Your task to perform on an android device: check google app version Image 0: 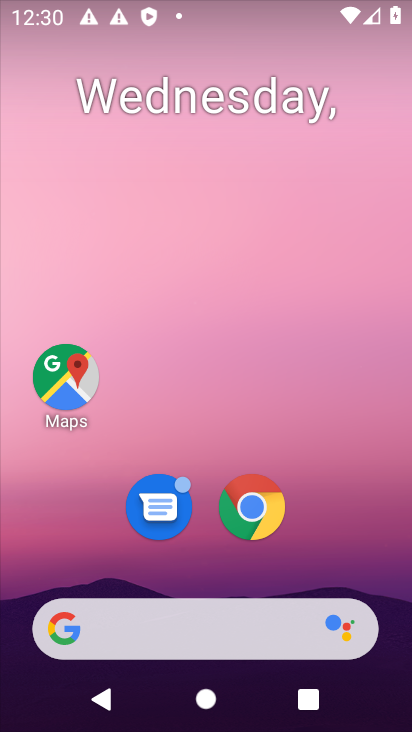
Step 0: drag from (260, 552) to (221, 181)
Your task to perform on an android device: check google app version Image 1: 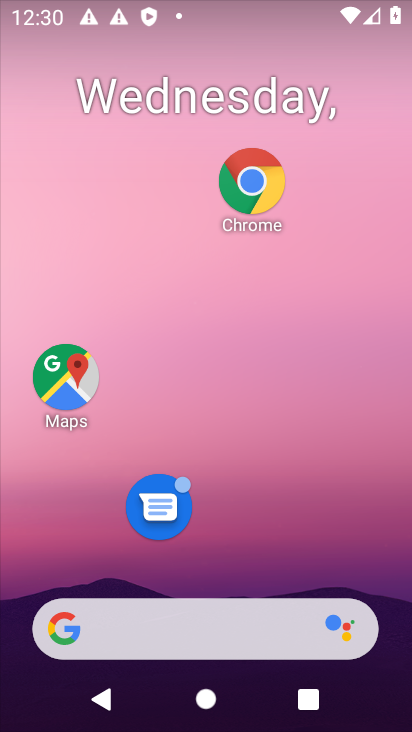
Step 1: drag from (218, 586) to (157, 101)
Your task to perform on an android device: check google app version Image 2: 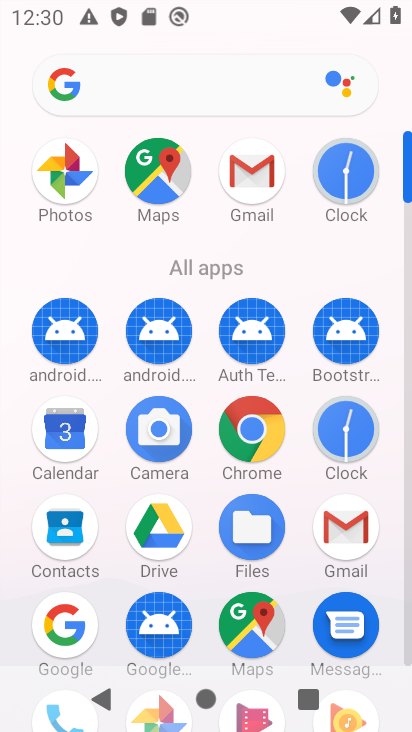
Step 2: drag from (213, 587) to (374, 420)
Your task to perform on an android device: check google app version Image 3: 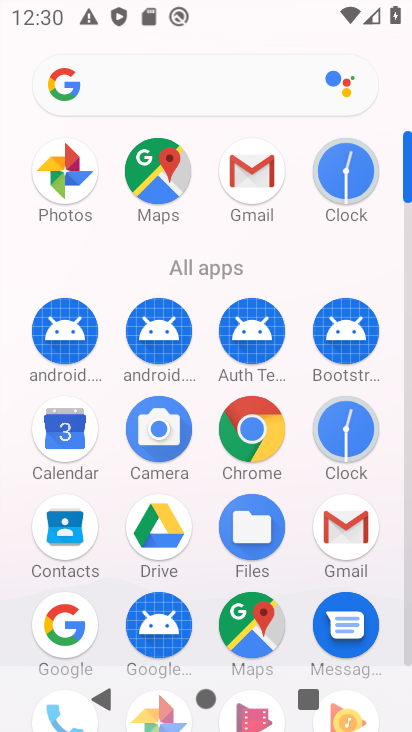
Step 3: click (70, 606)
Your task to perform on an android device: check google app version Image 4: 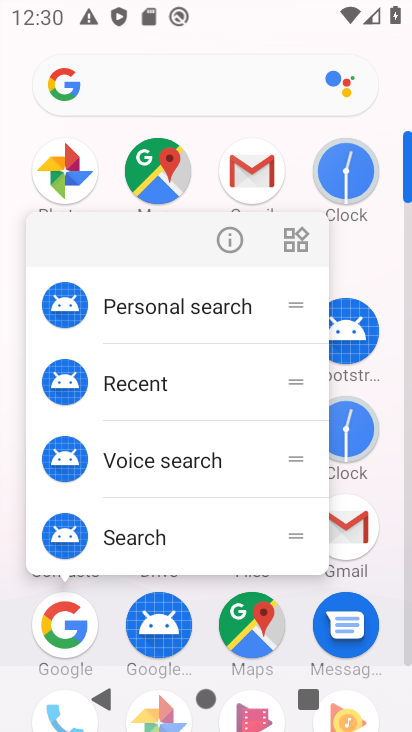
Step 4: click (217, 253)
Your task to perform on an android device: check google app version Image 5: 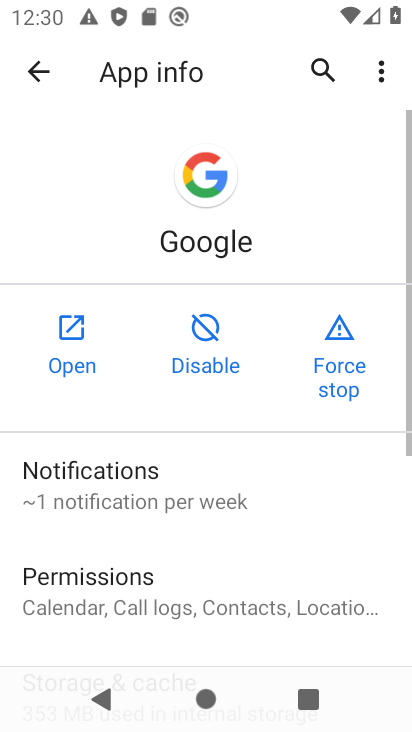
Step 5: drag from (116, 569) to (45, 36)
Your task to perform on an android device: check google app version Image 6: 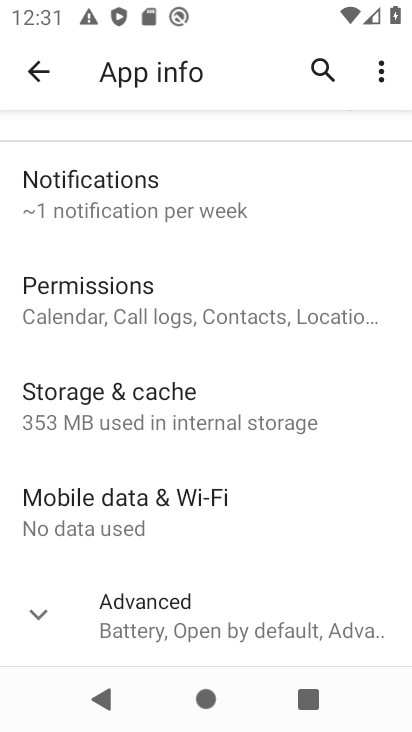
Step 6: click (189, 601)
Your task to perform on an android device: check google app version Image 7: 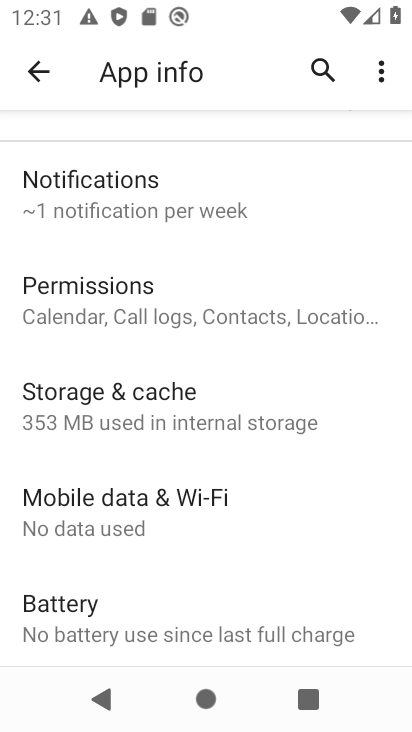
Step 7: task complete